Your task to perform on an android device: set default search engine in the chrome app Image 0: 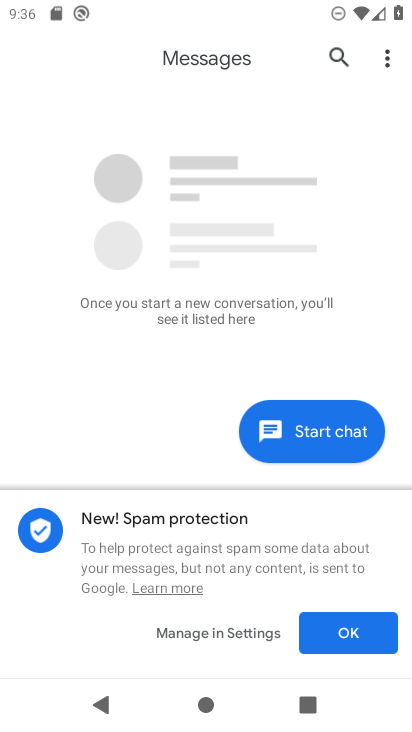
Step 0: press home button
Your task to perform on an android device: set default search engine in the chrome app Image 1: 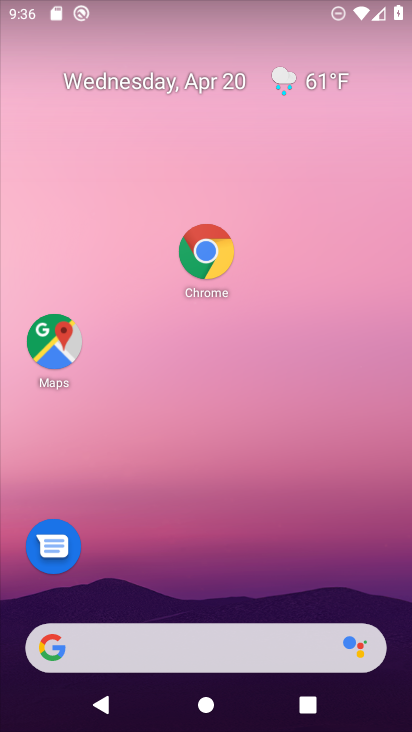
Step 1: drag from (238, 623) to (232, 126)
Your task to perform on an android device: set default search engine in the chrome app Image 2: 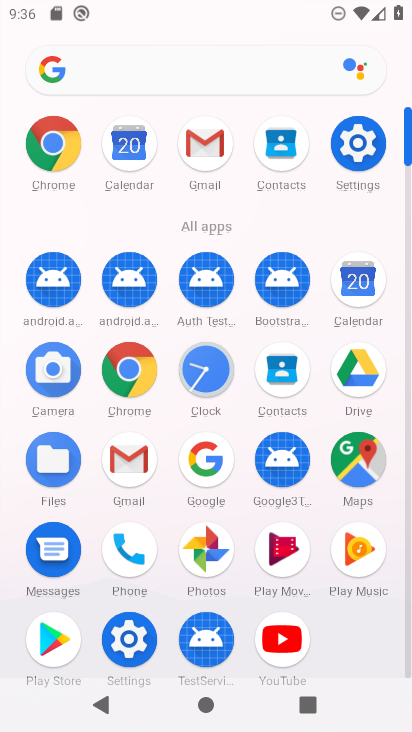
Step 2: click (134, 377)
Your task to perform on an android device: set default search engine in the chrome app Image 3: 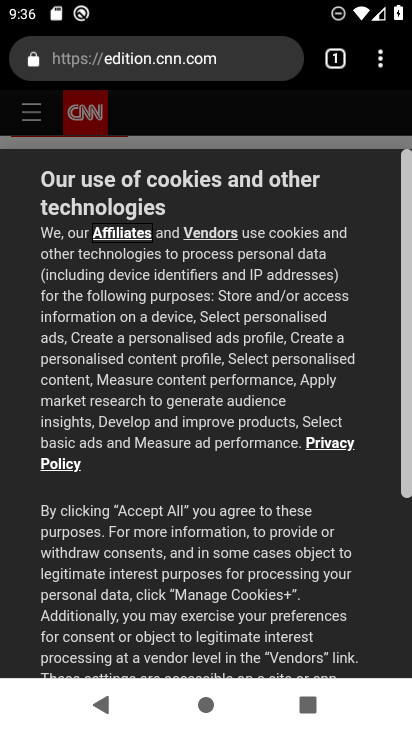
Step 3: press back button
Your task to perform on an android device: set default search engine in the chrome app Image 4: 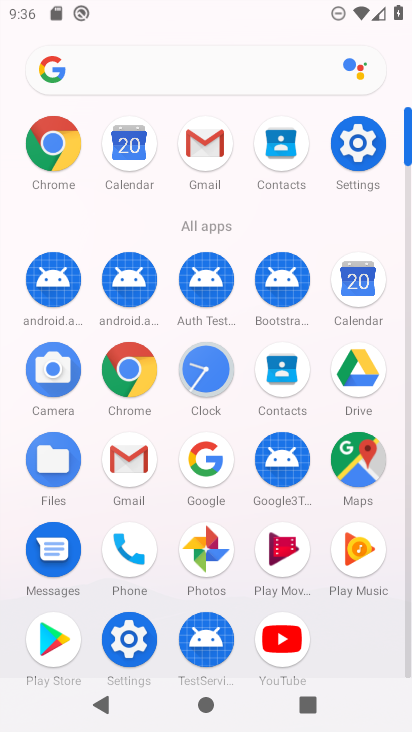
Step 4: click (115, 371)
Your task to perform on an android device: set default search engine in the chrome app Image 5: 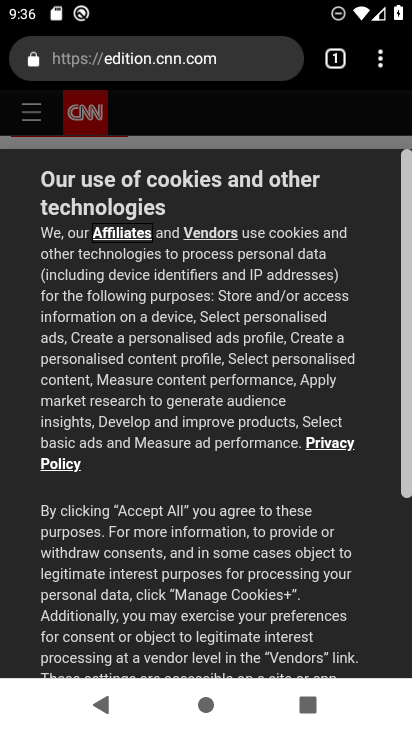
Step 5: click (378, 58)
Your task to perform on an android device: set default search engine in the chrome app Image 6: 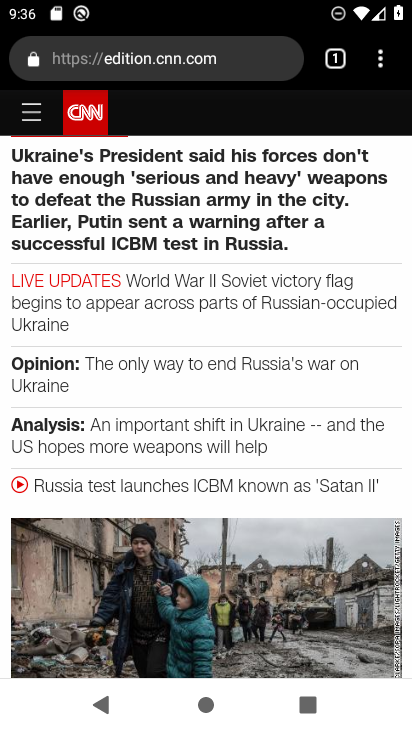
Step 6: click (381, 57)
Your task to perform on an android device: set default search engine in the chrome app Image 7: 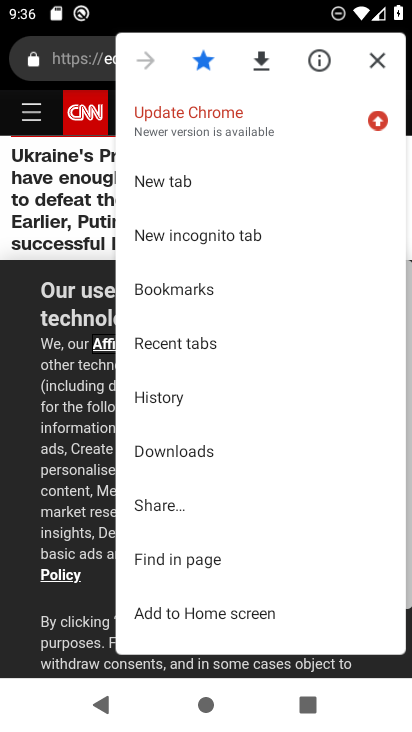
Step 7: drag from (183, 470) to (232, 240)
Your task to perform on an android device: set default search engine in the chrome app Image 8: 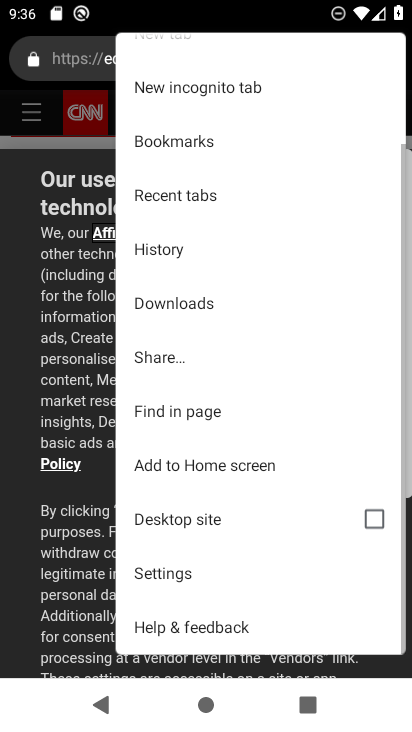
Step 8: click (182, 575)
Your task to perform on an android device: set default search engine in the chrome app Image 9: 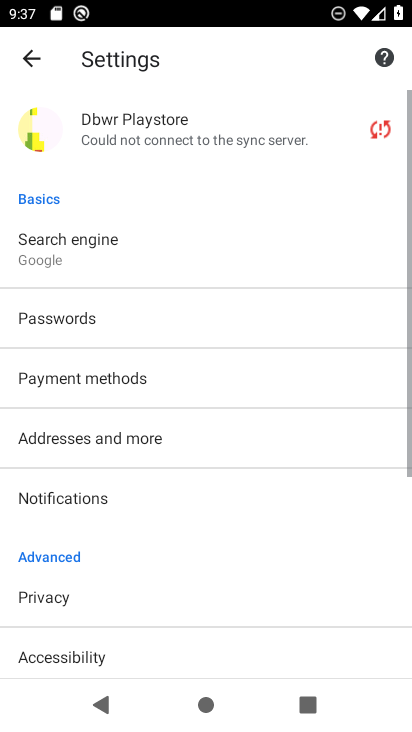
Step 9: click (68, 241)
Your task to perform on an android device: set default search engine in the chrome app Image 10: 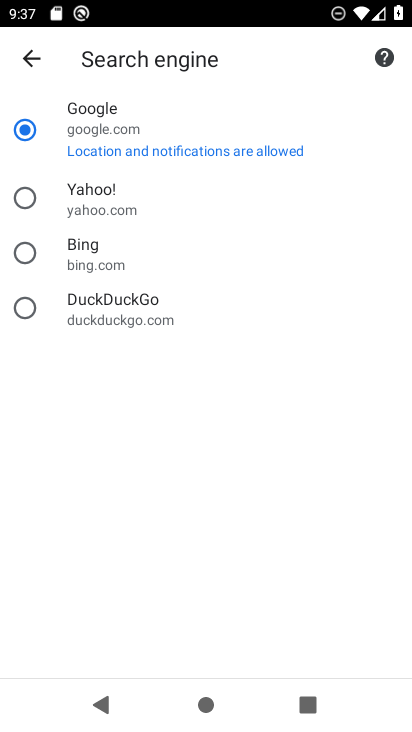
Step 10: click (21, 198)
Your task to perform on an android device: set default search engine in the chrome app Image 11: 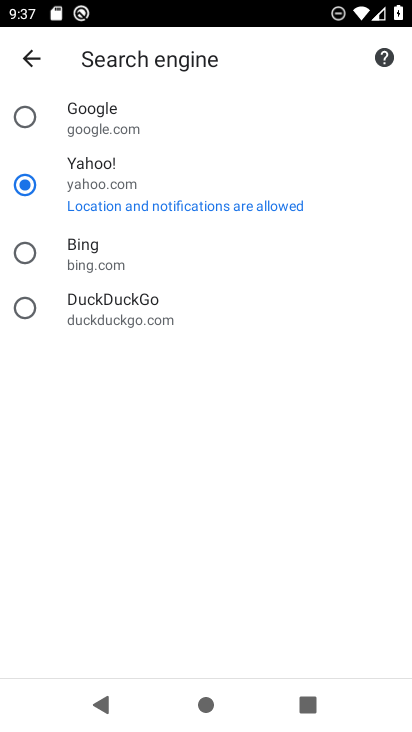
Step 11: task complete